Your task to perform on an android device: Open the stopwatch Image 0: 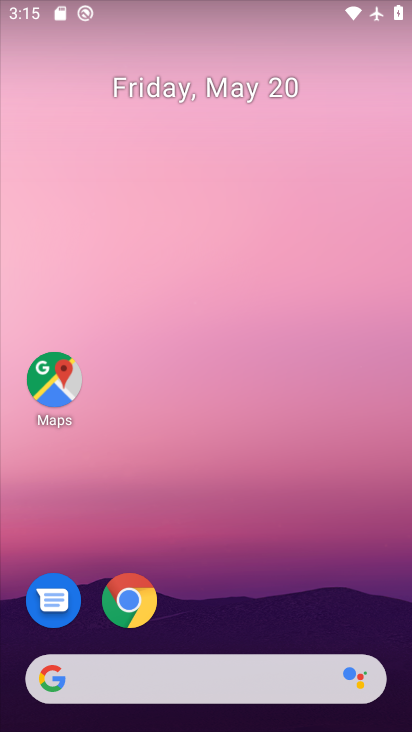
Step 0: drag from (278, 590) to (120, 5)
Your task to perform on an android device: Open the stopwatch Image 1: 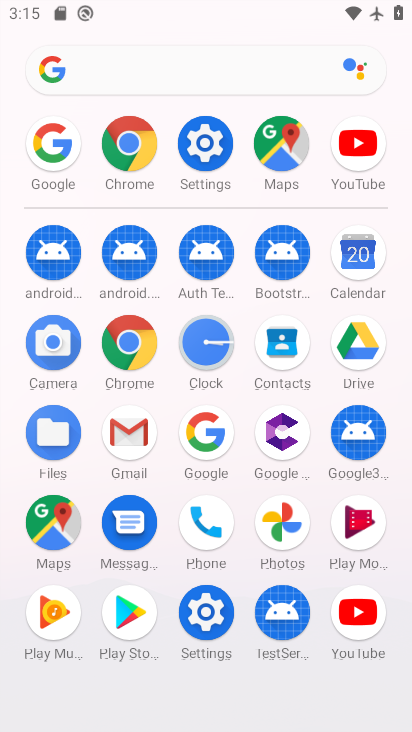
Step 1: click (213, 343)
Your task to perform on an android device: Open the stopwatch Image 2: 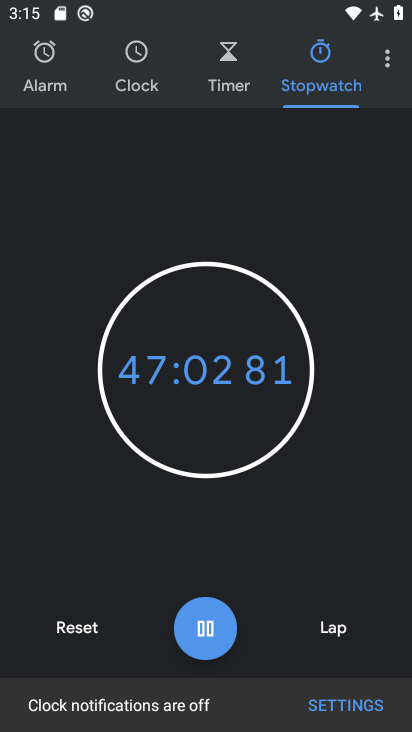
Step 2: task complete